Your task to perform on an android device: Is it going to rain this weekend? Image 0: 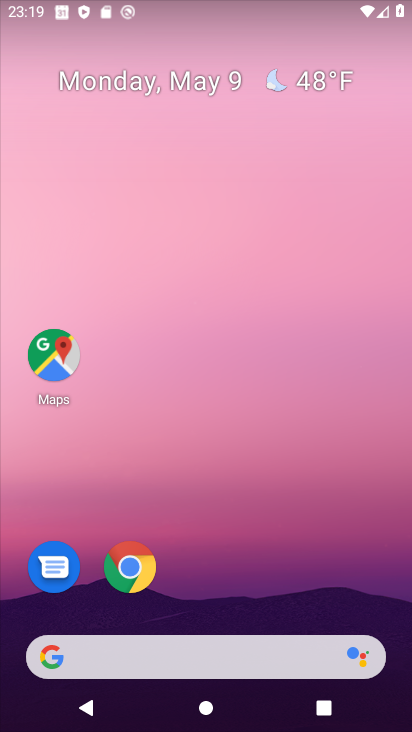
Step 0: drag from (260, 580) to (243, 131)
Your task to perform on an android device: Is it going to rain this weekend? Image 1: 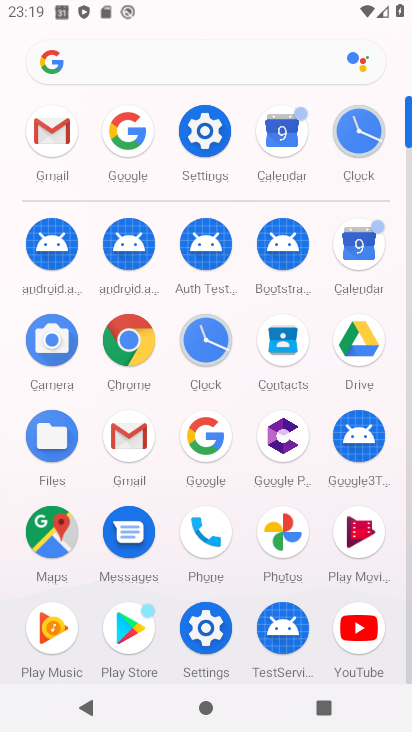
Step 1: click (119, 130)
Your task to perform on an android device: Is it going to rain this weekend? Image 2: 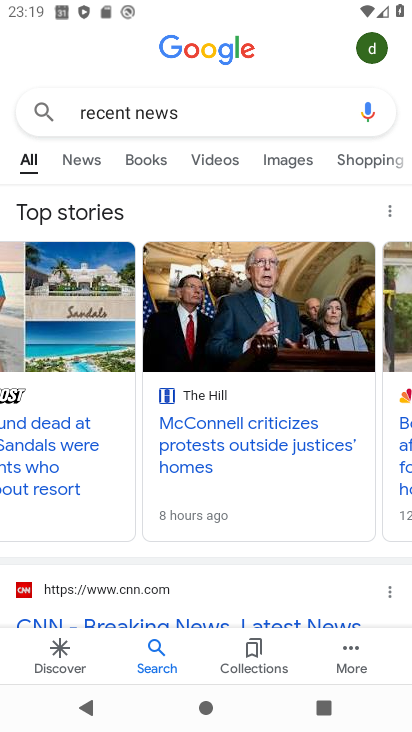
Step 2: click (258, 106)
Your task to perform on an android device: Is it going to rain this weekend? Image 3: 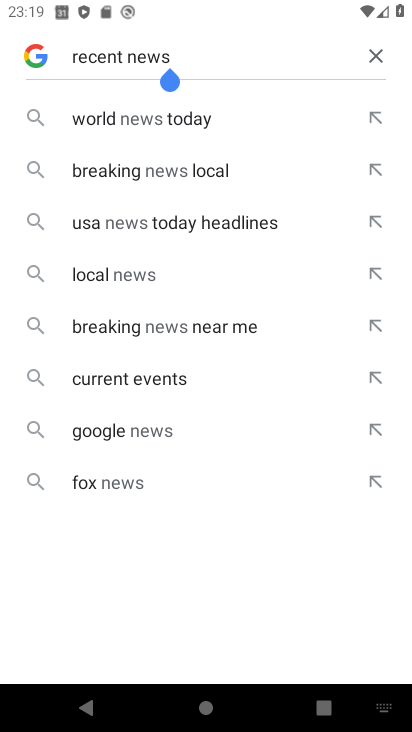
Step 3: click (375, 62)
Your task to perform on an android device: Is it going to rain this weekend? Image 4: 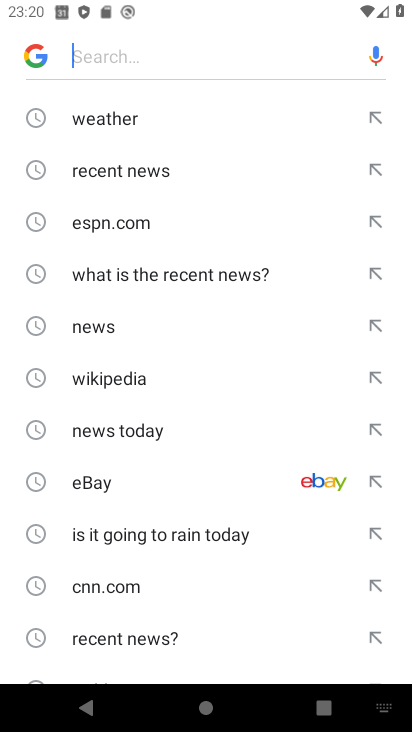
Step 4: type "weather weekend"
Your task to perform on an android device: Is it going to rain this weekend? Image 5: 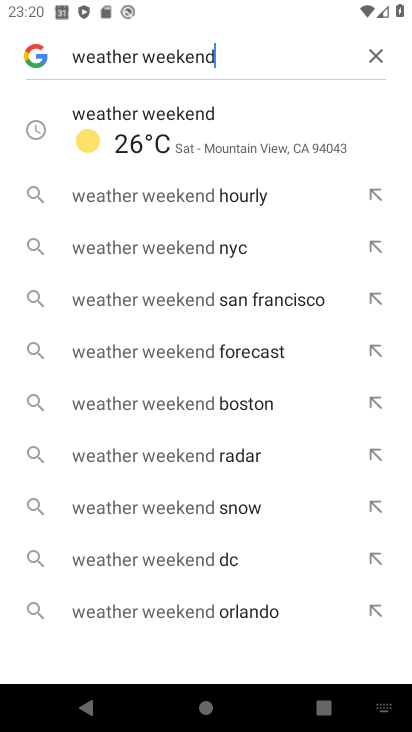
Step 5: click (120, 104)
Your task to perform on an android device: Is it going to rain this weekend? Image 6: 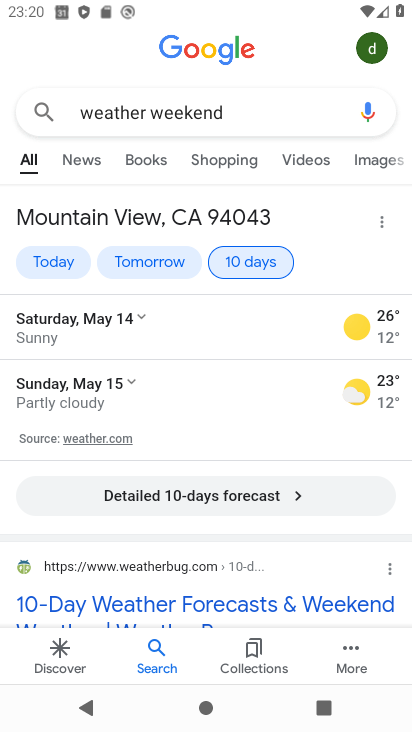
Step 6: click (199, 490)
Your task to perform on an android device: Is it going to rain this weekend? Image 7: 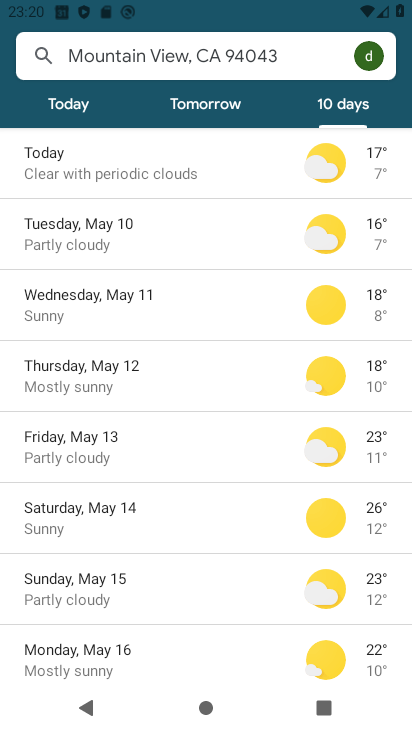
Step 7: task complete